Your task to perform on an android device: When is my next appointment? Image 0: 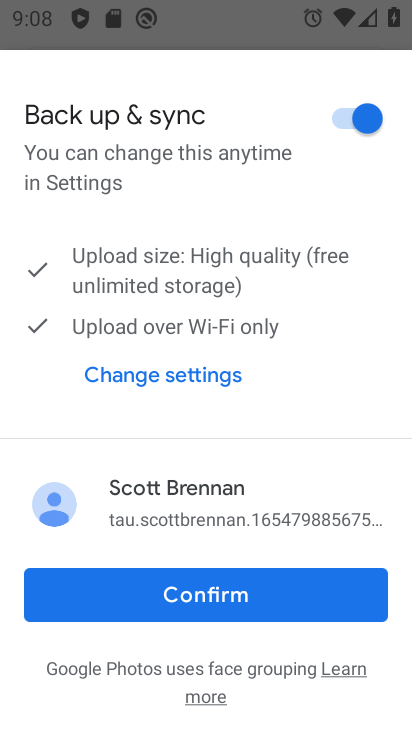
Step 0: press home button
Your task to perform on an android device: When is my next appointment? Image 1: 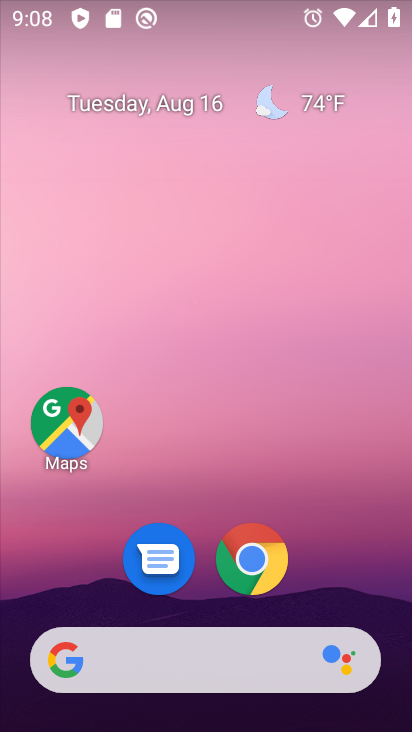
Step 1: drag from (221, 640) to (265, 142)
Your task to perform on an android device: When is my next appointment? Image 2: 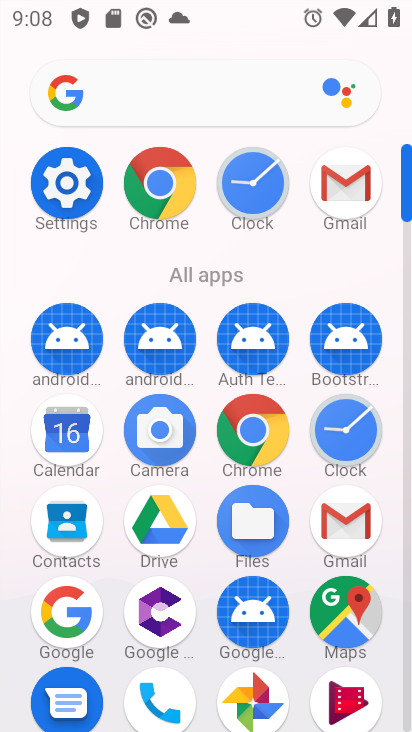
Step 2: click (70, 434)
Your task to perform on an android device: When is my next appointment? Image 3: 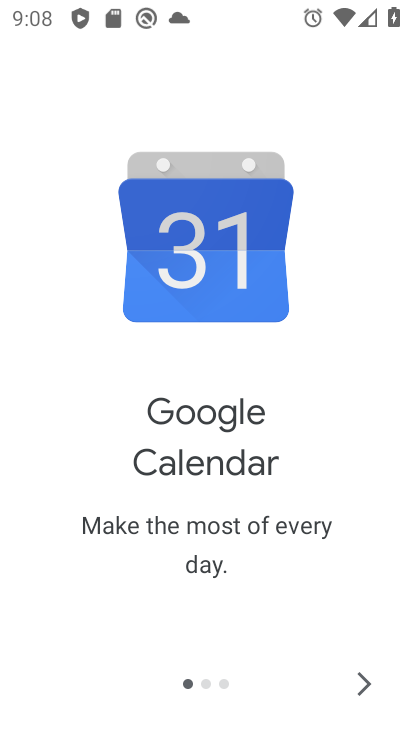
Step 3: click (360, 682)
Your task to perform on an android device: When is my next appointment? Image 4: 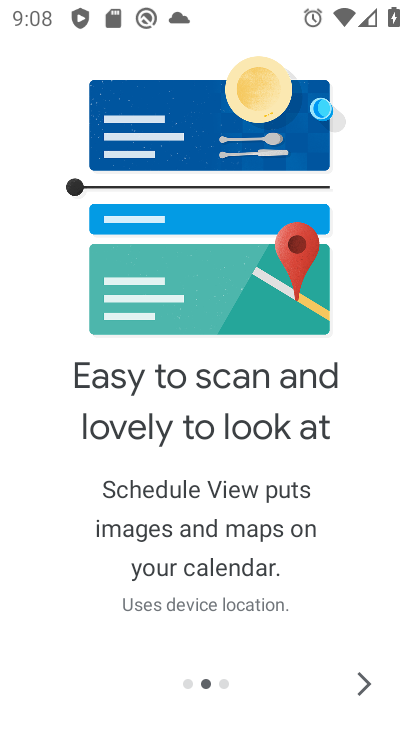
Step 4: click (360, 682)
Your task to perform on an android device: When is my next appointment? Image 5: 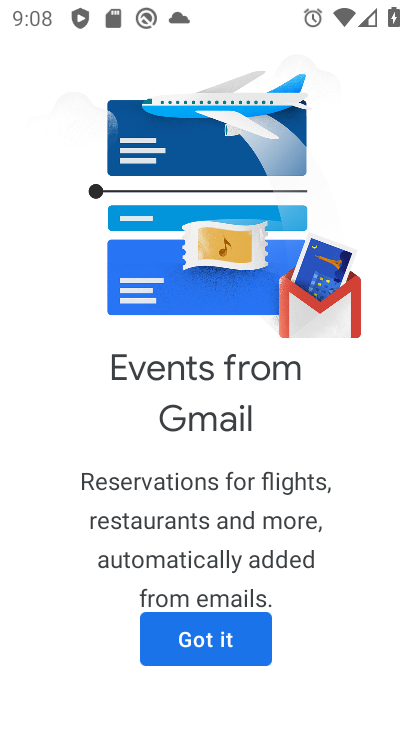
Step 5: click (205, 637)
Your task to perform on an android device: When is my next appointment? Image 6: 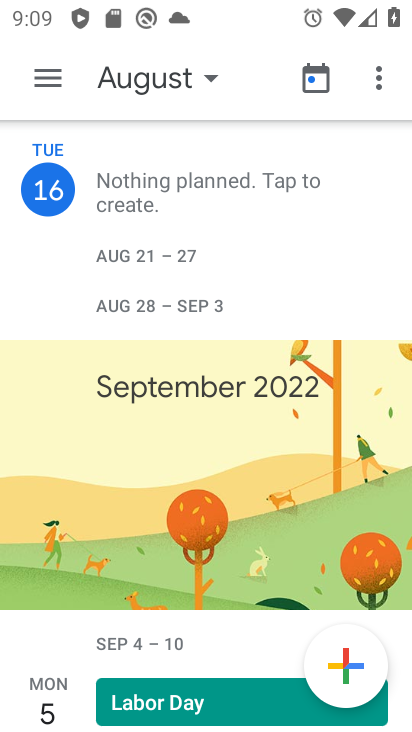
Step 6: click (211, 81)
Your task to perform on an android device: When is my next appointment? Image 7: 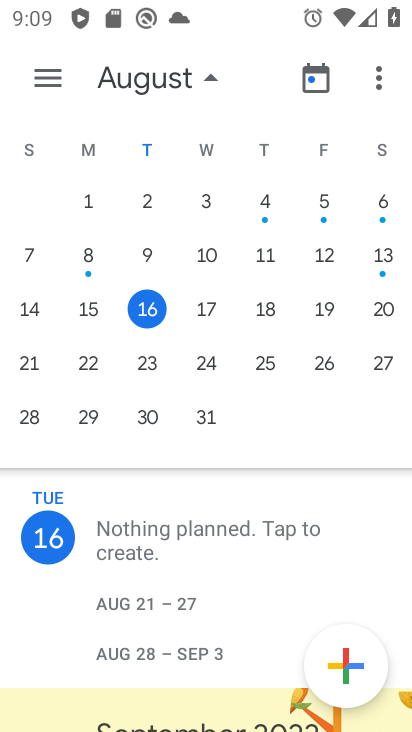
Step 7: click (211, 316)
Your task to perform on an android device: When is my next appointment? Image 8: 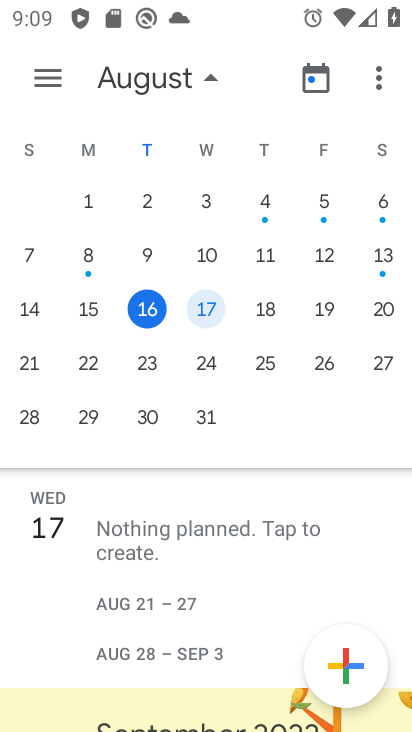
Step 8: click (53, 87)
Your task to perform on an android device: When is my next appointment? Image 9: 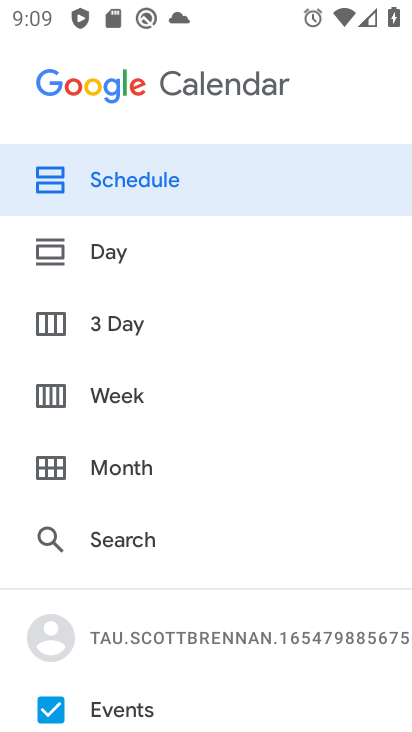
Step 9: click (98, 179)
Your task to perform on an android device: When is my next appointment? Image 10: 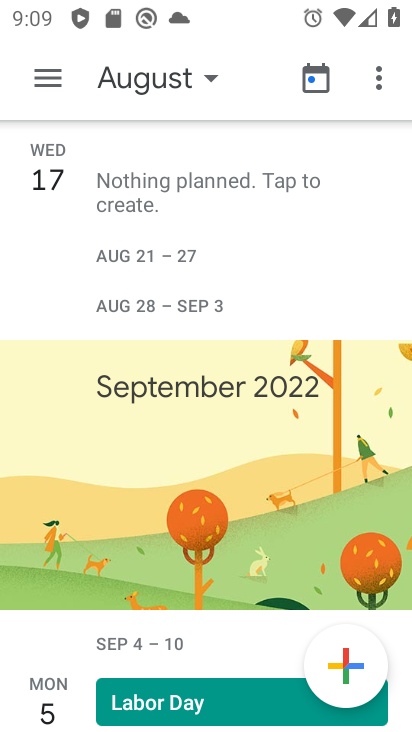
Step 10: task complete